Your task to perform on an android device: Where can I buy a nice beach chair? Image 0: 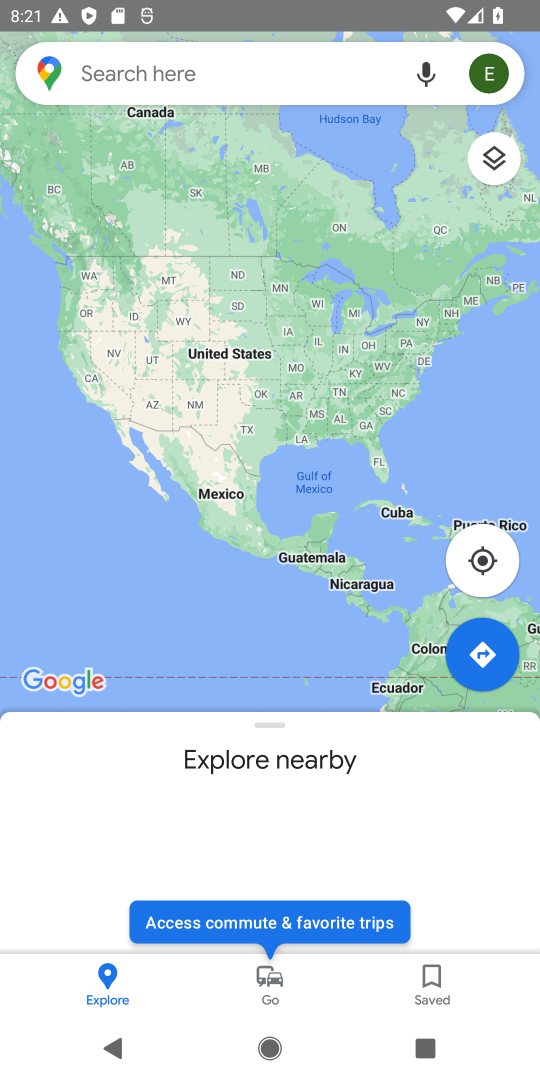
Step 0: press home button
Your task to perform on an android device: Where can I buy a nice beach chair? Image 1: 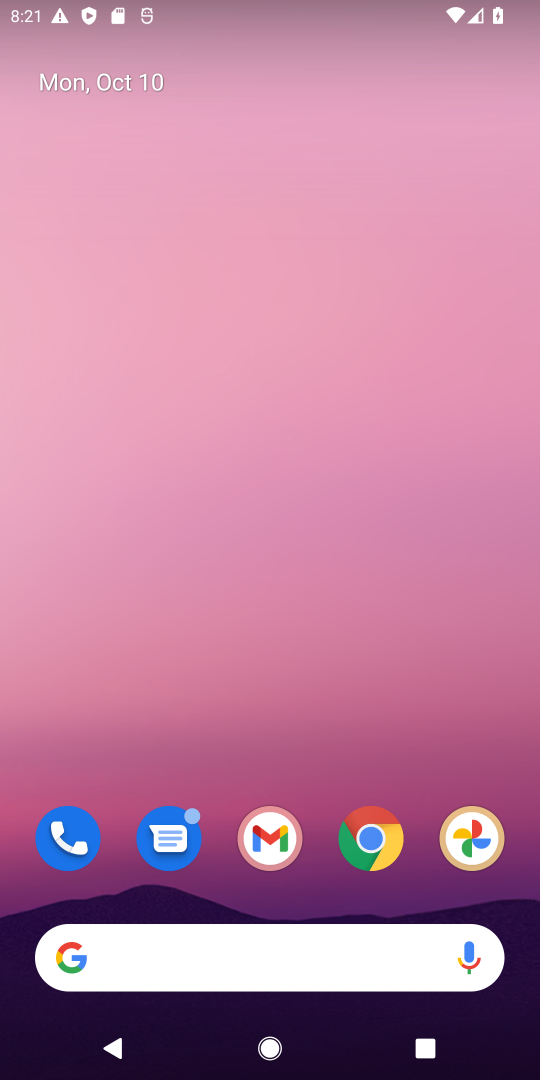
Step 1: drag from (332, 694) to (316, 60)
Your task to perform on an android device: Where can I buy a nice beach chair? Image 2: 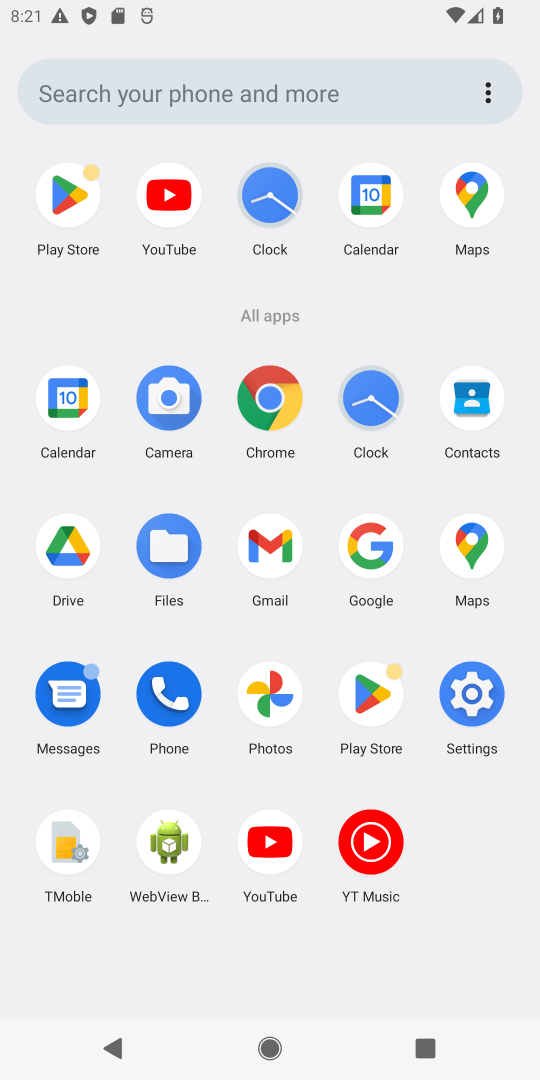
Step 2: click (274, 388)
Your task to perform on an android device: Where can I buy a nice beach chair? Image 3: 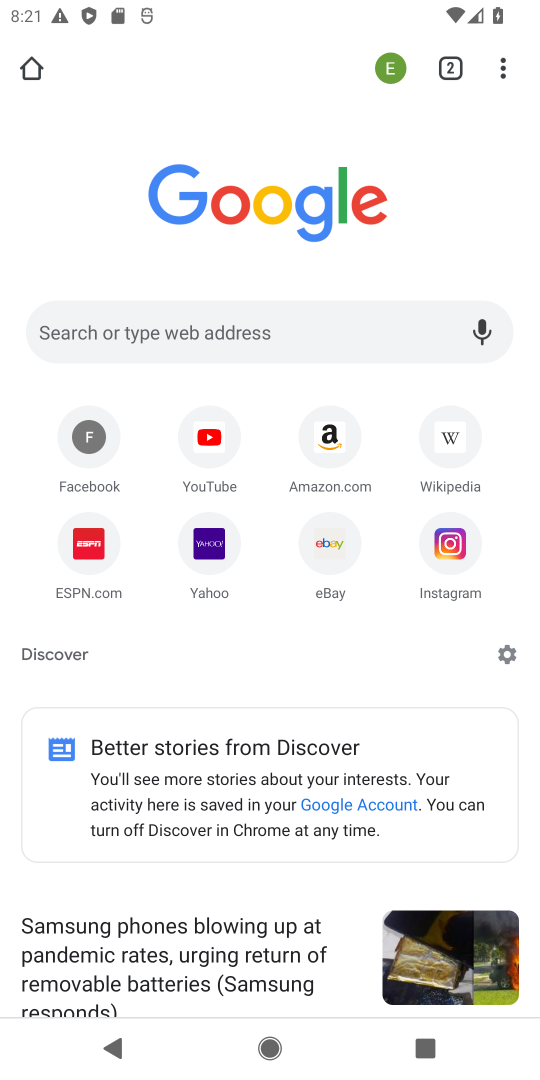
Step 3: click (251, 321)
Your task to perform on an android device: Where can I buy a nice beach chair? Image 4: 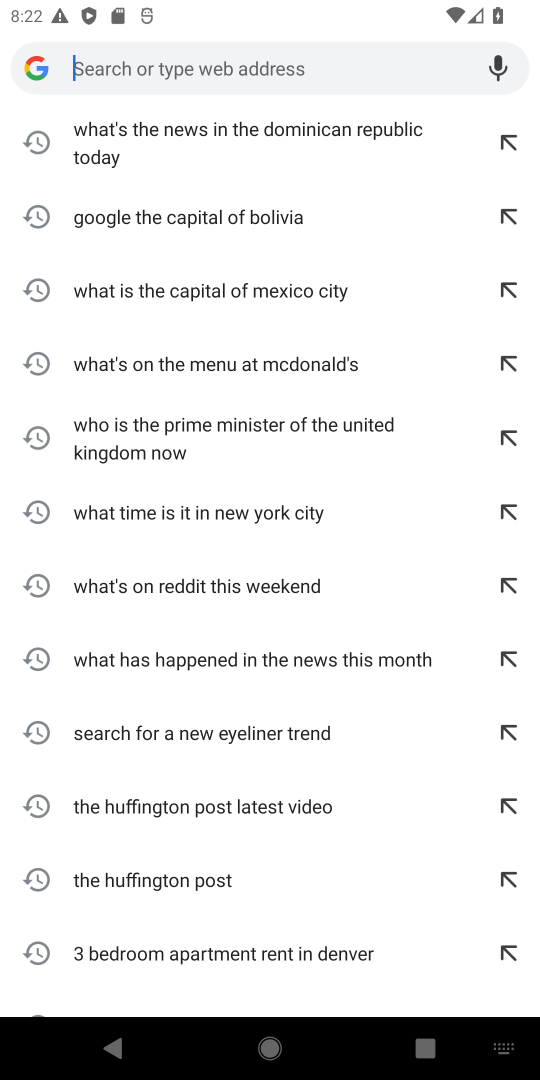
Step 4: type "Where can I buy a nice beach chair?"
Your task to perform on an android device: Where can I buy a nice beach chair? Image 5: 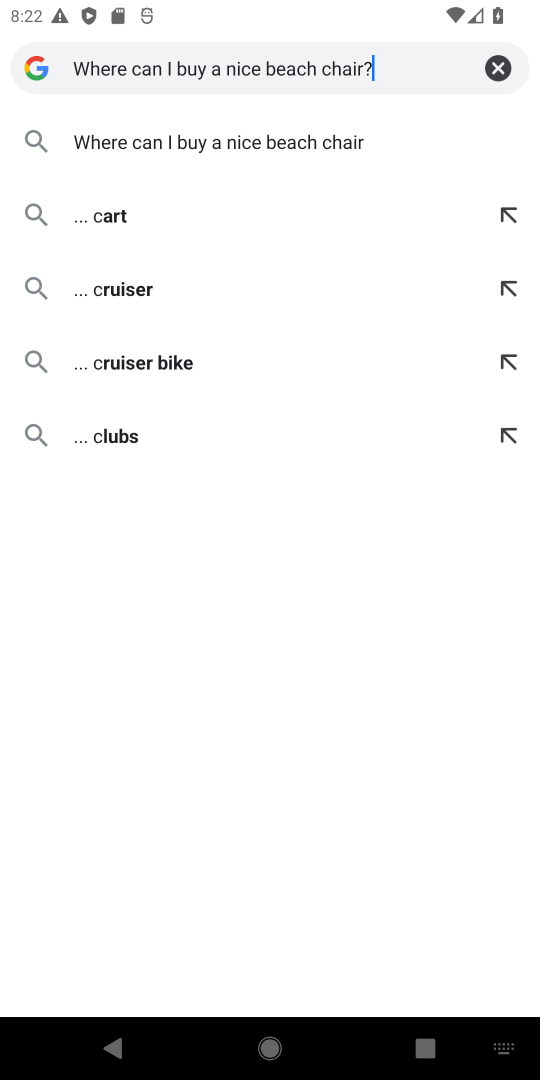
Step 5: type ""
Your task to perform on an android device: Where can I buy a nice beach chair? Image 6: 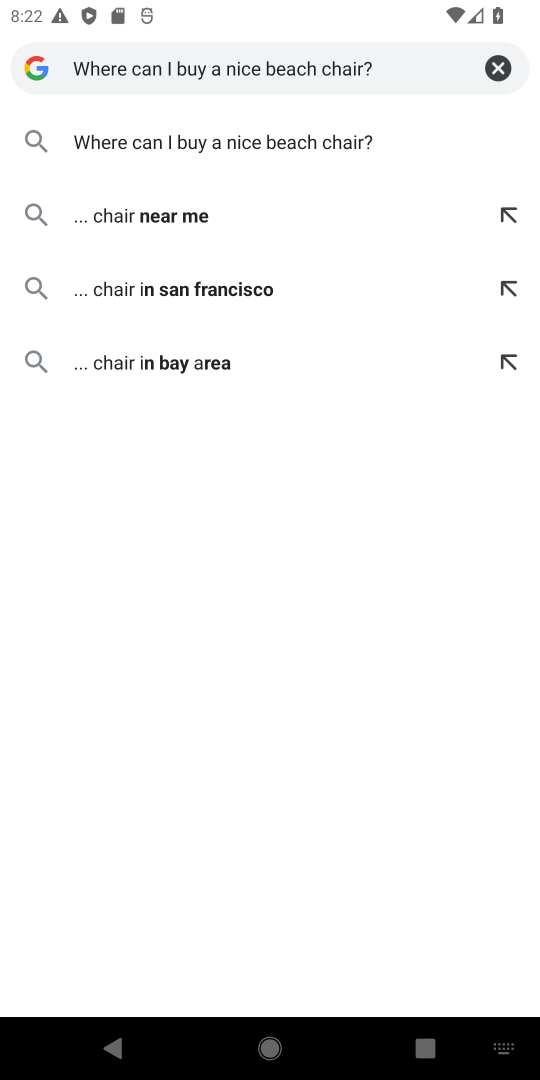
Step 6: click (259, 143)
Your task to perform on an android device: Where can I buy a nice beach chair? Image 7: 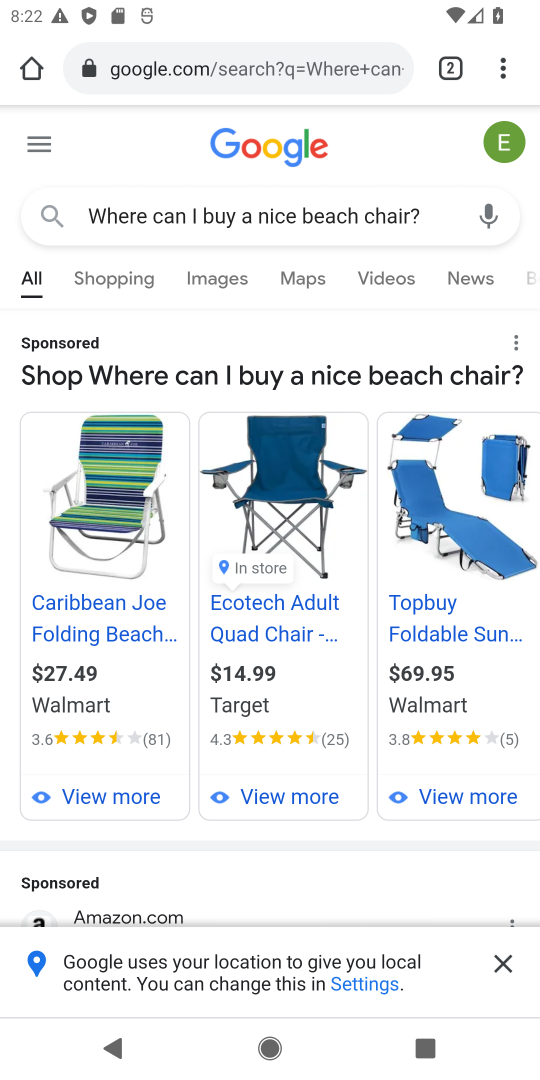
Step 7: task complete